Your task to perform on an android device: install app "LiveIn - Share Your Moment" Image 0: 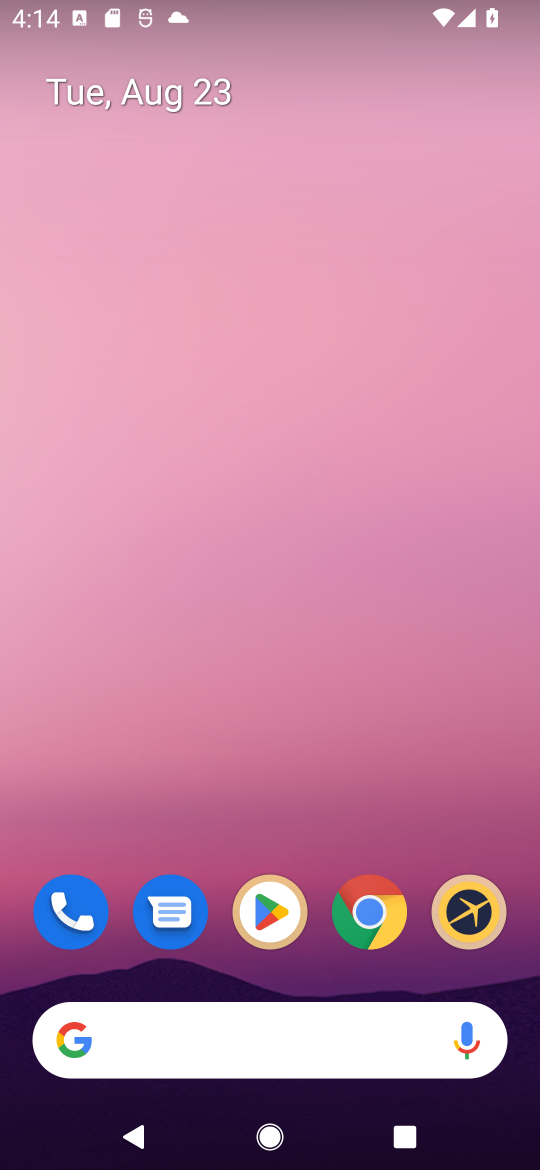
Step 0: drag from (247, 1001) to (221, 75)
Your task to perform on an android device: install app "LiveIn - Share Your Moment" Image 1: 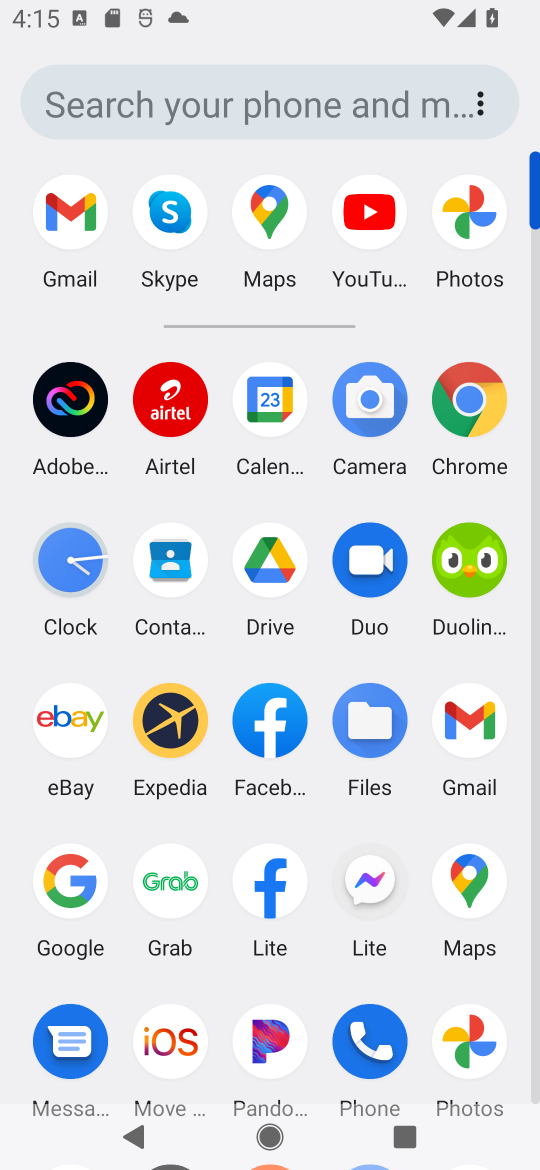
Step 1: drag from (310, 981) to (294, 466)
Your task to perform on an android device: install app "LiveIn - Share Your Moment" Image 2: 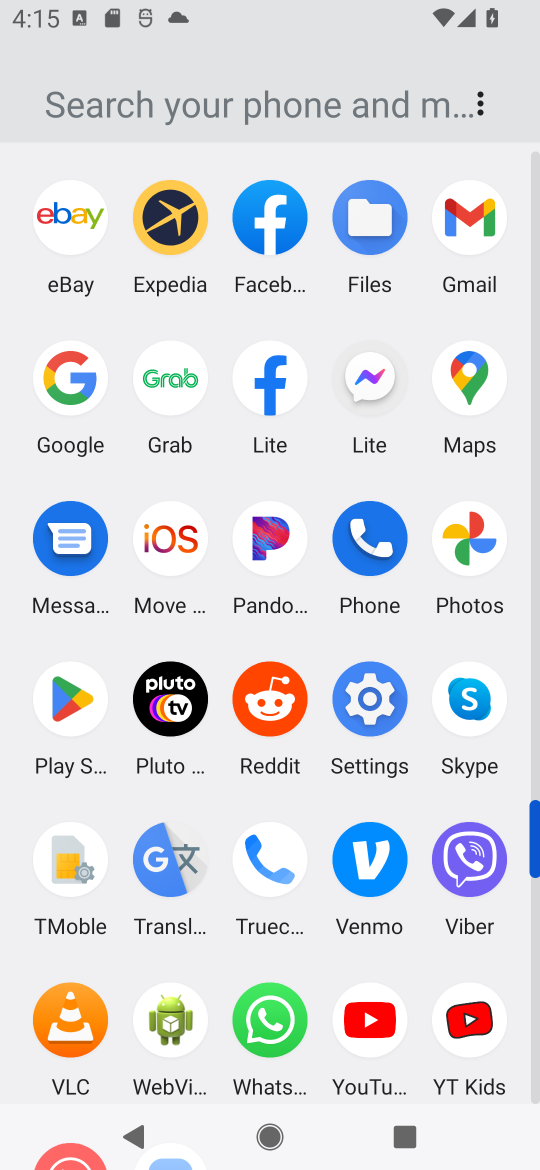
Step 2: click (69, 708)
Your task to perform on an android device: install app "LiveIn - Share Your Moment" Image 3: 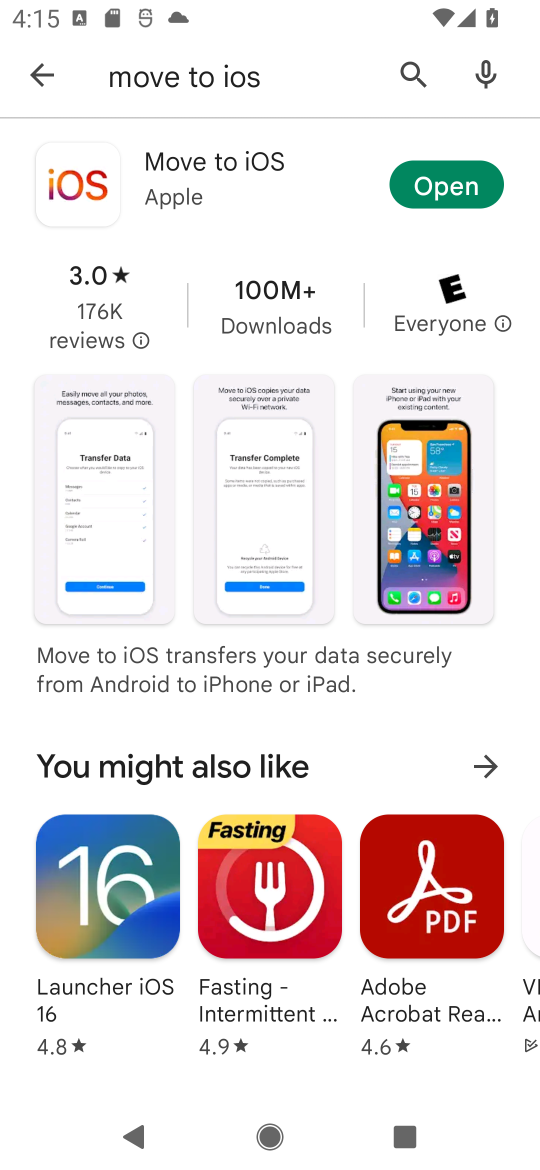
Step 3: press back button
Your task to perform on an android device: install app "LiveIn - Share Your Moment" Image 4: 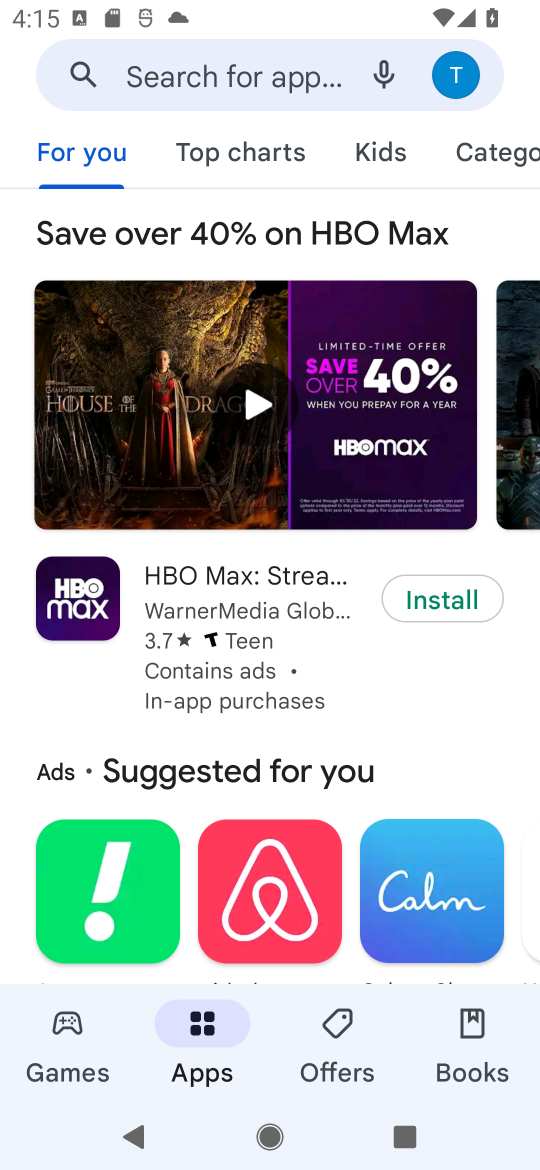
Step 4: click (265, 85)
Your task to perform on an android device: install app "LiveIn - Share Your Moment" Image 5: 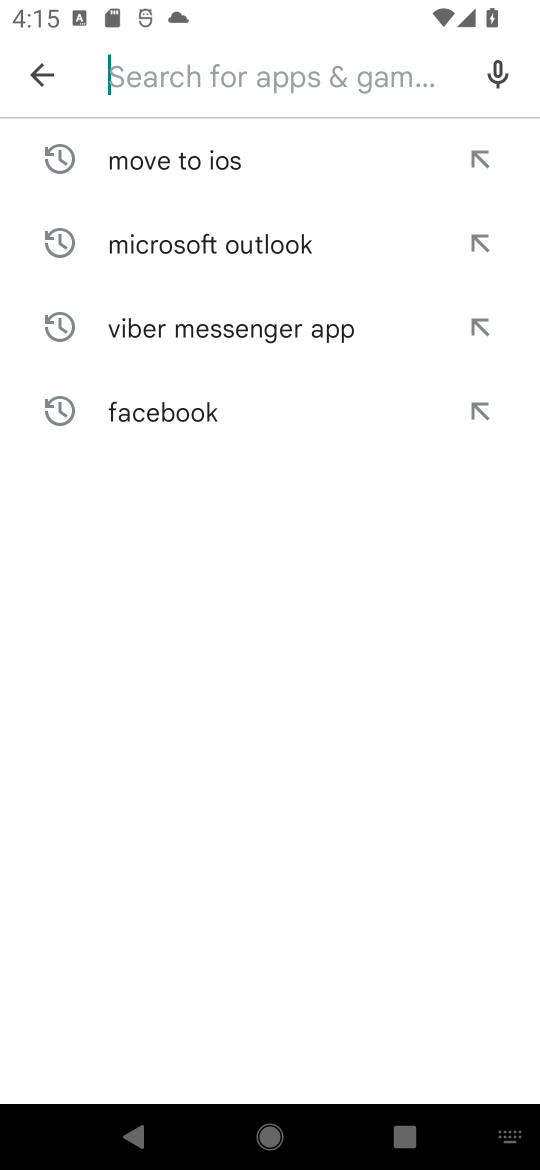
Step 5: click (161, 77)
Your task to perform on an android device: install app "LiveIn - Share Your Moment" Image 6: 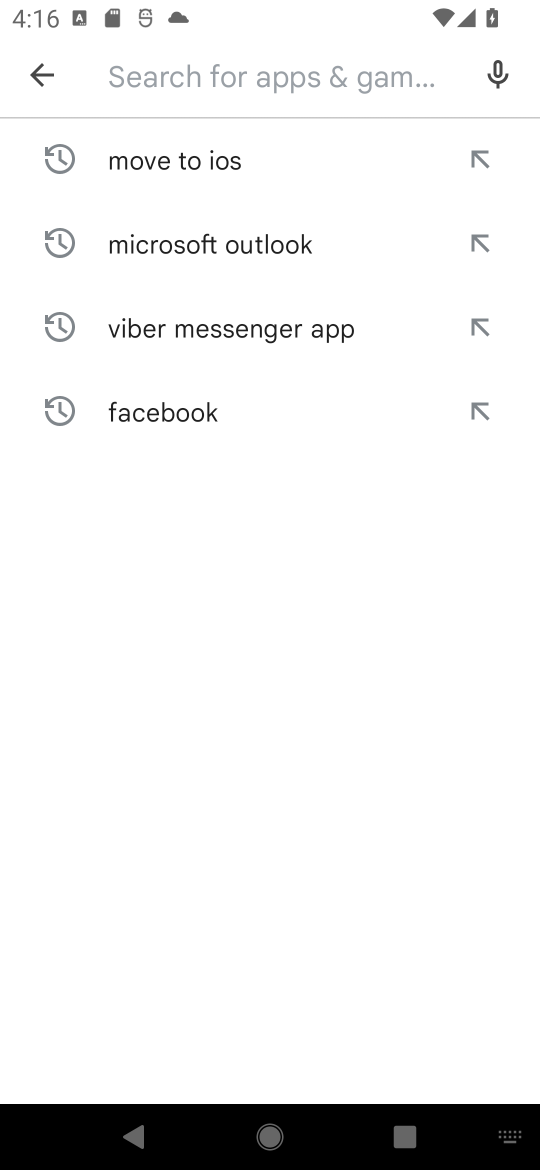
Step 6: type "LiveIn - Share Your Moment"
Your task to perform on an android device: install app "LiveIn - Share Your Moment" Image 7: 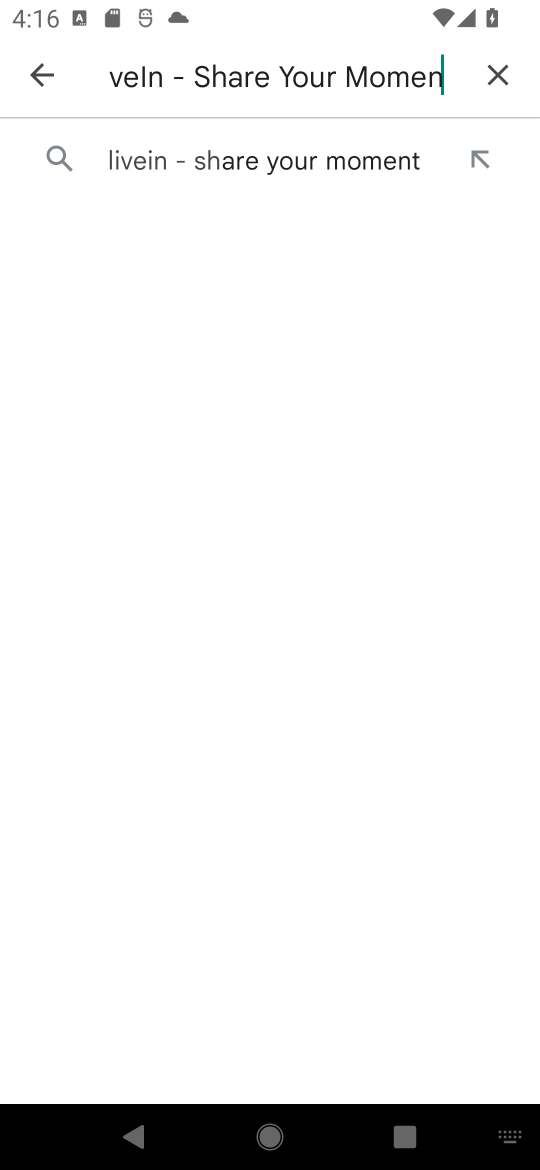
Step 7: type ""
Your task to perform on an android device: install app "LiveIn - Share Your Moment" Image 8: 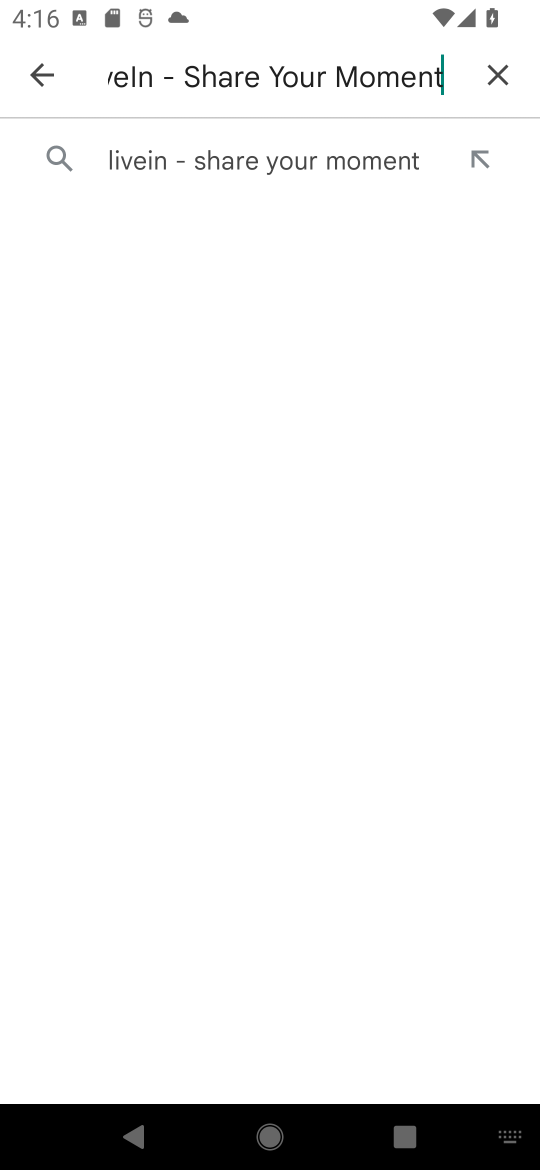
Step 8: click (259, 171)
Your task to perform on an android device: install app "LiveIn - Share Your Moment" Image 9: 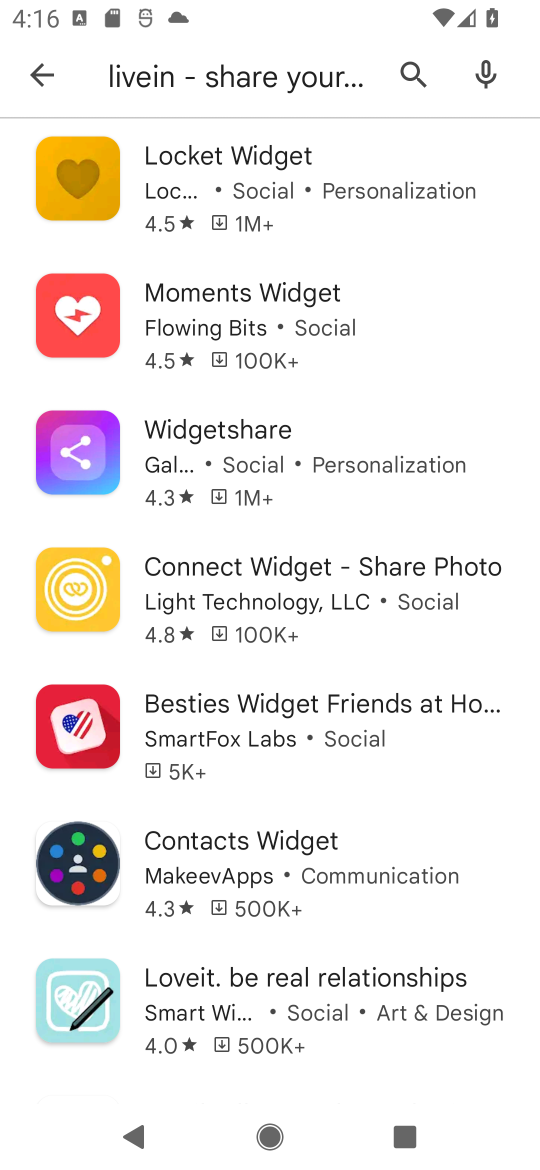
Step 9: task complete